Your task to perform on an android device: allow cookies in the chrome app Image 0: 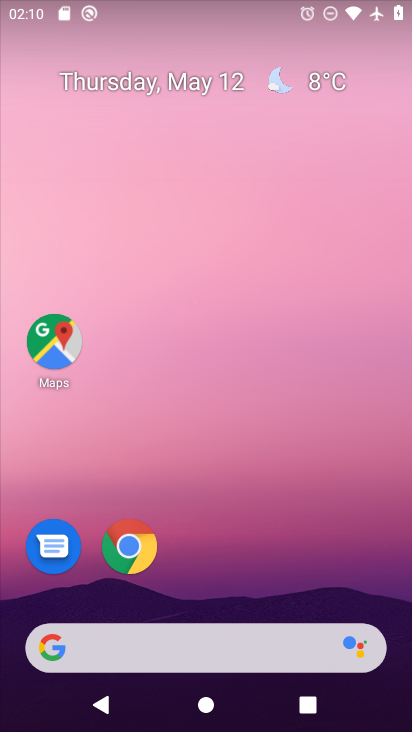
Step 0: drag from (189, 645) to (303, 133)
Your task to perform on an android device: allow cookies in the chrome app Image 1: 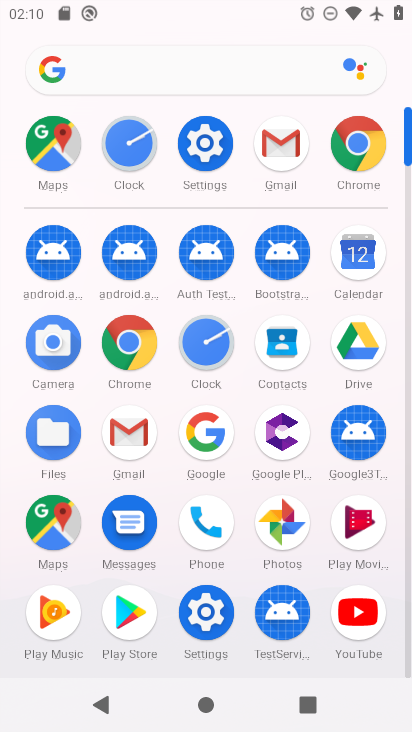
Step 1: click (363, 157)
Your task to perform on an android device: allow cookies in the chrome app Image 2: 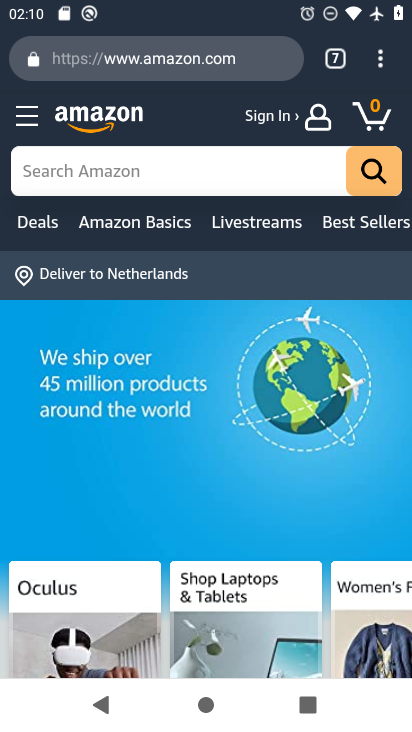
Step 2: drag from (377, 66) to (253, 572)
Your task to perform on an android device: allow cookies in the chrome app Image 3: 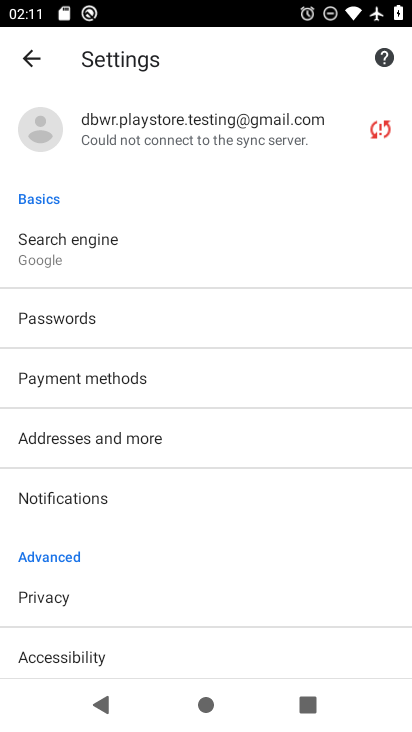
Step 3: drag from (189, 585) to (300, 361)
Your task to perform on an android device: allow cookies in the chrome app Image 4: 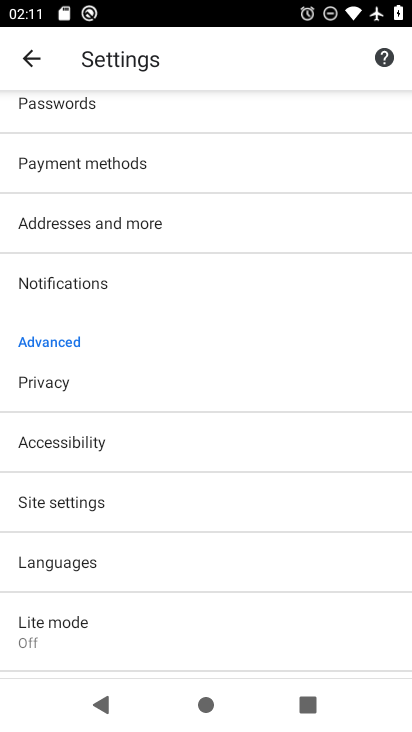
Step 4: click (84, 506)
Your task to perform on an android device: allow cookies in the chrome app Image 5: 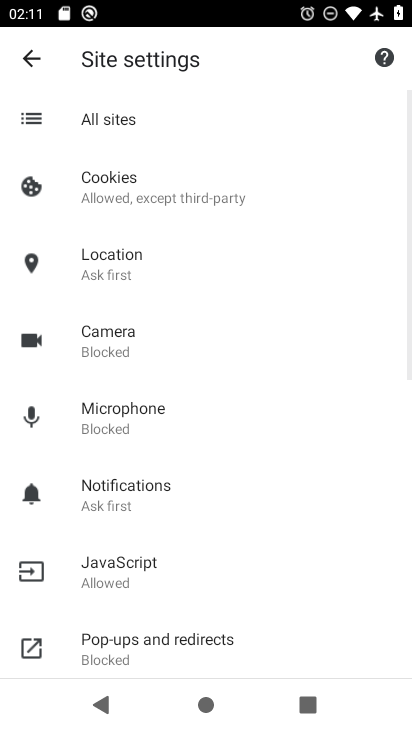
Step 5: click (142, 191)
Your task to perform on an android device: allow cookies in the chrome app Image 6: 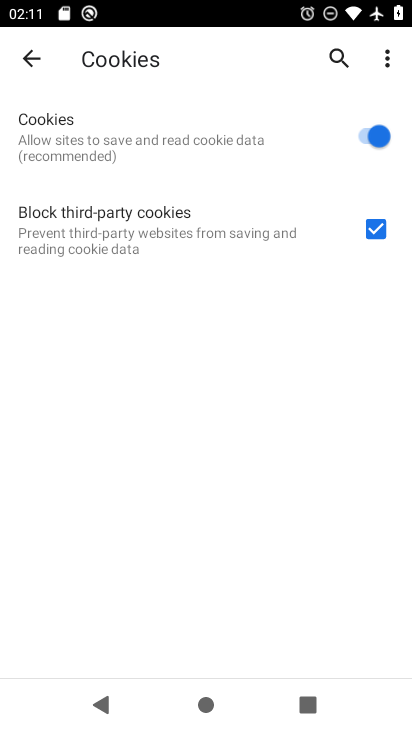
Step 6: task complete